Your task to perform on an android device: turn notification dots on Image 0: 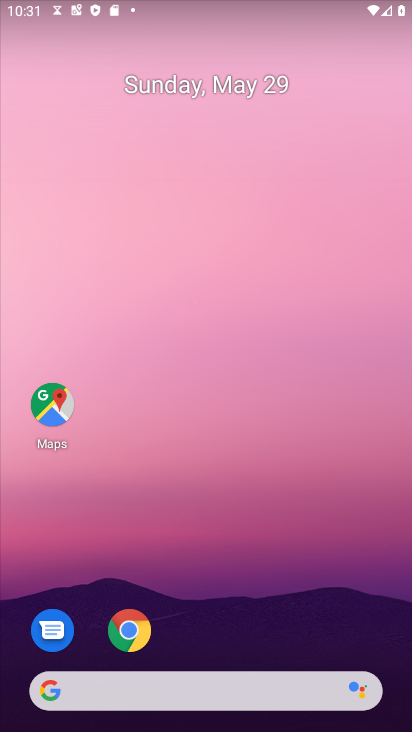
Step 0: drag from (263, 619) to (303, 86)
Your task to perform on an android device: turn notification dots on Image 1: 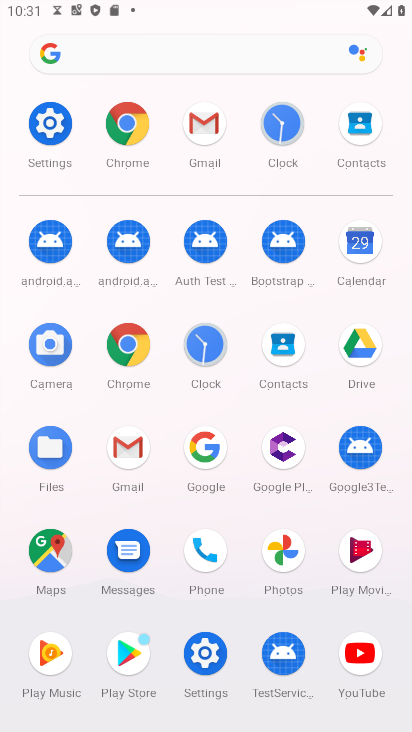
Step 1: click (51, 126)
Your task to perform on an android device: turn notification dots on Image 2: 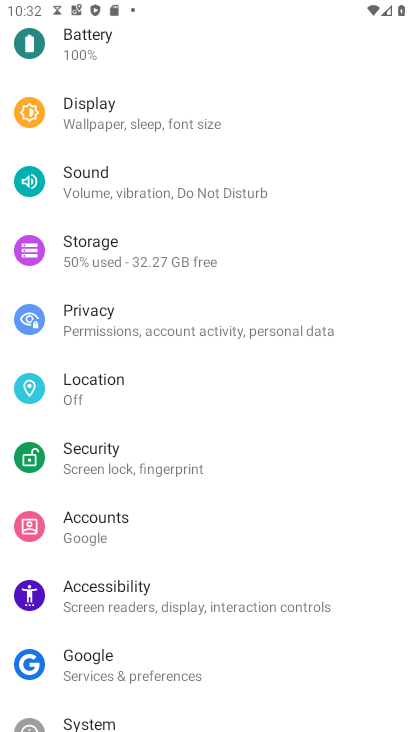
Step 2: drag from (264, 638) to (272, 230)
Your task to perform on an android device: turn notification dots on Image 3: 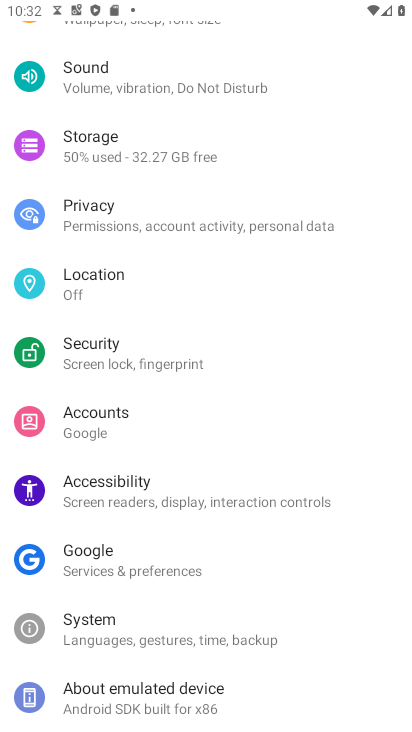
Step 3: drag from (279, 136) to (272, 588)
Your task to perform on an android device: turn notification dots on Image 4: 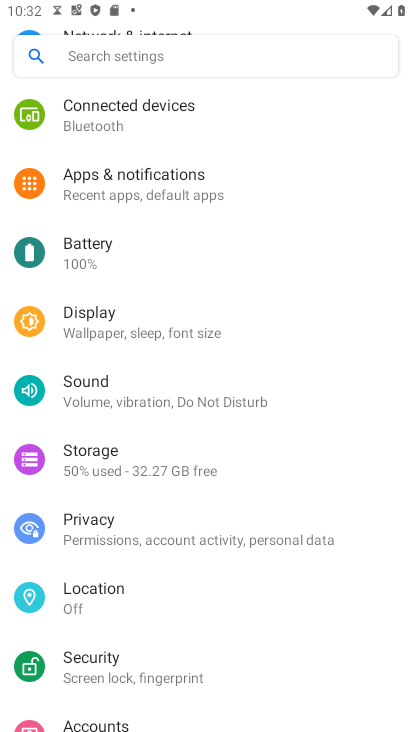
Step 4: click (216, 184)
Your task to perform on an android device: turn notification dots on Image 5: 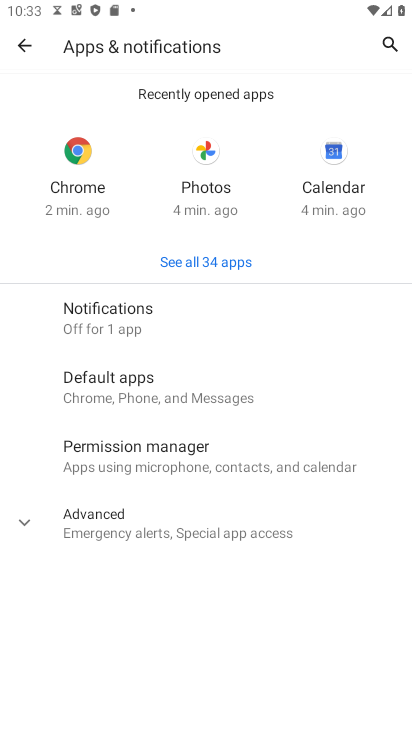
Step 5: click (212, 321)
Your task to perform on an android device: turn notification dots on Image 6: 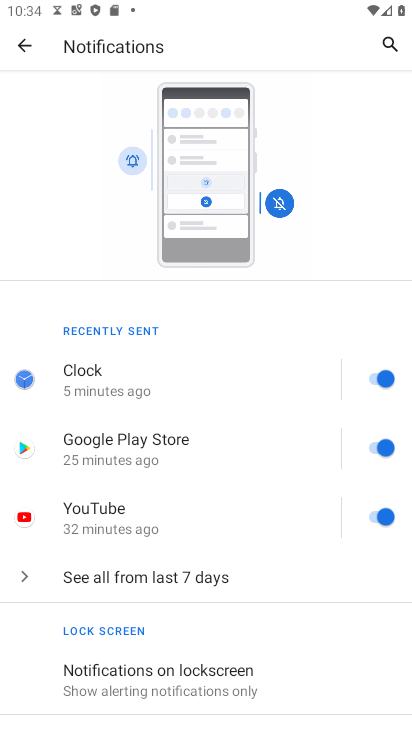
Step 6: drag from (228, 634) to (226, 342)
Your task to perform on an android device: turn notification dots on Image 7: 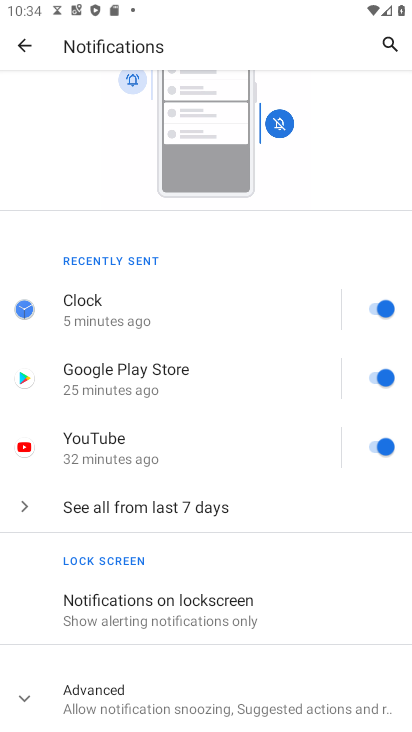
Step 7: click (160, 695)
Your task to perform on an android device: turn notification dots on Image 8: 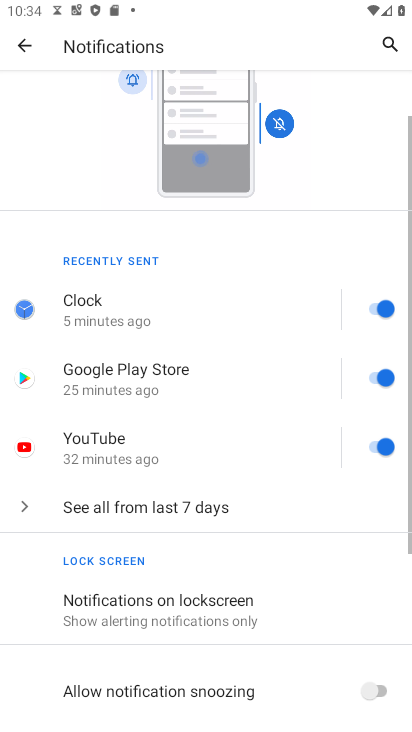
Step 8: task complete